Your task to perform on an android device: check data usage Image 0: 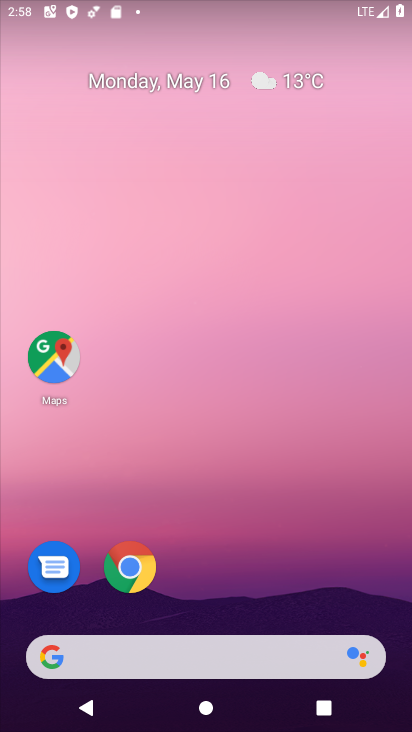
Step 0: drag from (288, 581) to (290, 43)
Your task to perform on an android device: check data usage Image 1: 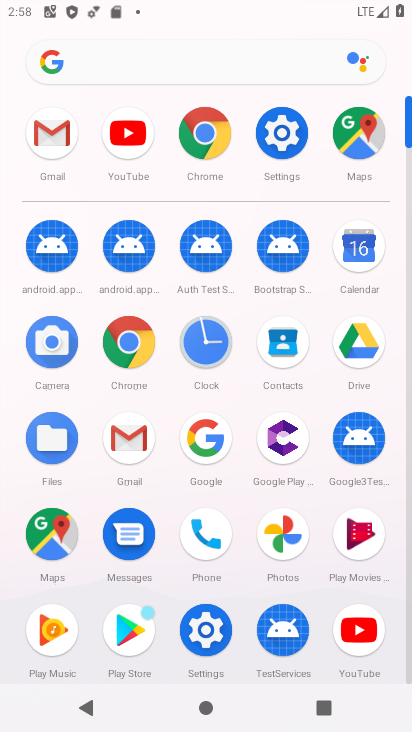
Step 1: click (287, 124)
Your task to perform on an android device: check data usage Image 2: 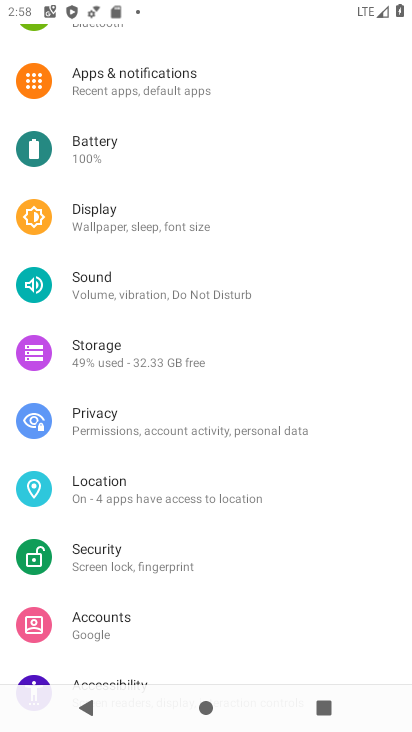
Step 2: drag from (146, 122) to (156, 412)
Your task to perform on an android device: check data usage Image 3: 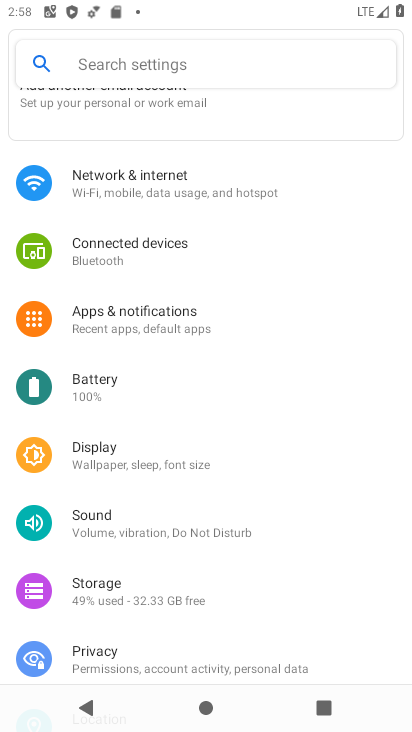
Step 3: click (145, 186)
Your task to perform on an android device: check data usage Image 4: 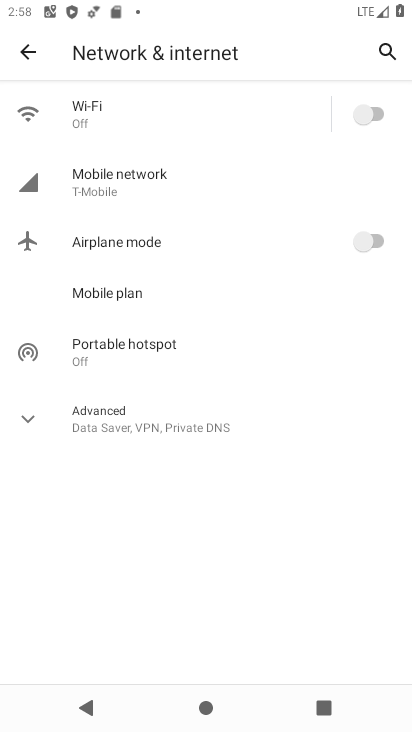
Step 4: click (164, 178)
Your task to perform on an android device: check data usage Image 5: 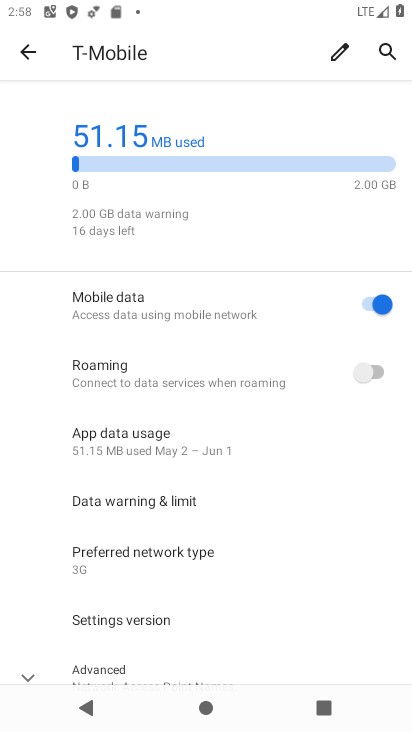
Step 5: task complete